Your task to perform on an android device: Open Reddit.com Image 0: 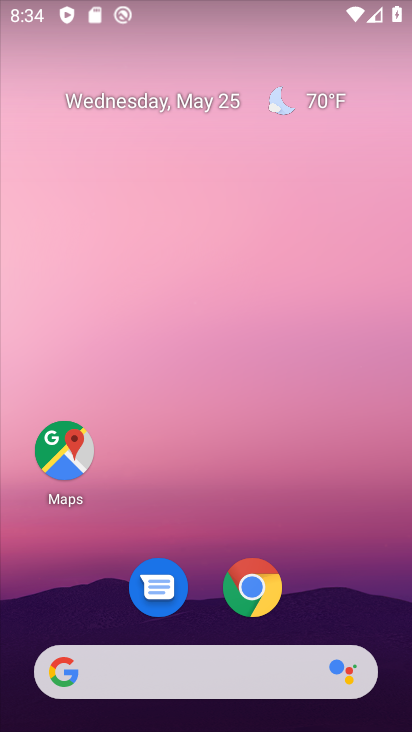
Step 0: click (244, 589)
Your task to perform on an android device: Open Reddit.com Image 1: 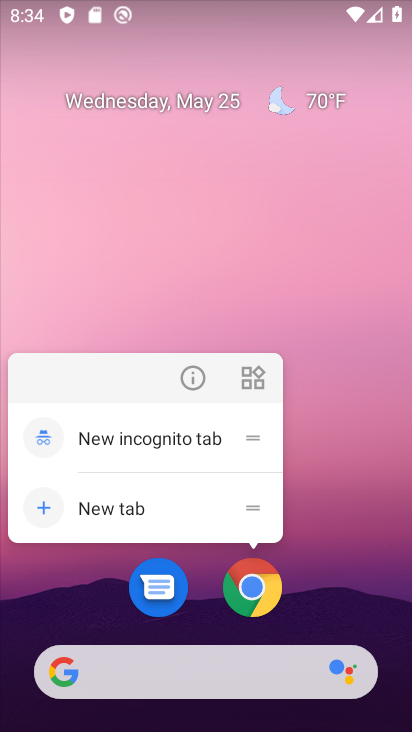
Step 1: click (244, 589)
Your task to perform on an android device: Open Reddit.com Image 2: 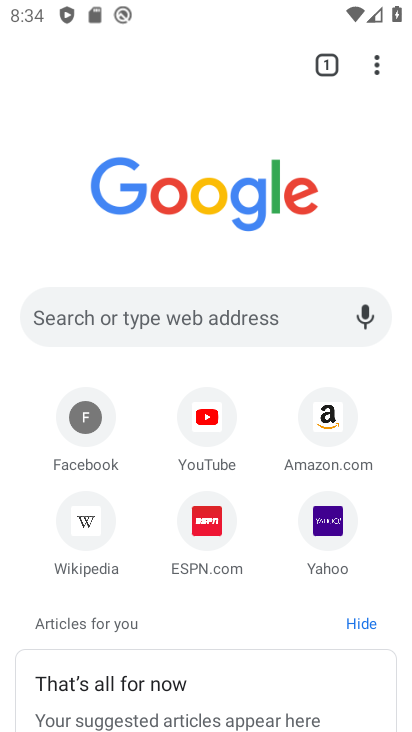
Step 2: click (225, 318)
Your task to perform on an android device: Open Reddit.com Image 3: 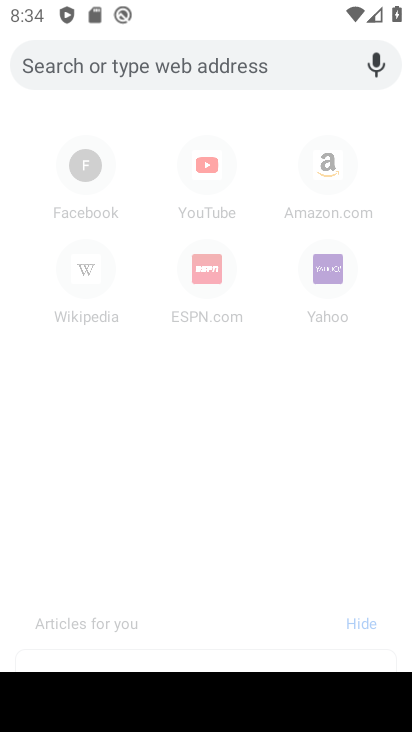
Step 3: type "Reddit.com"
Your task to perform on an android device: Open Reddit.com Image 4: 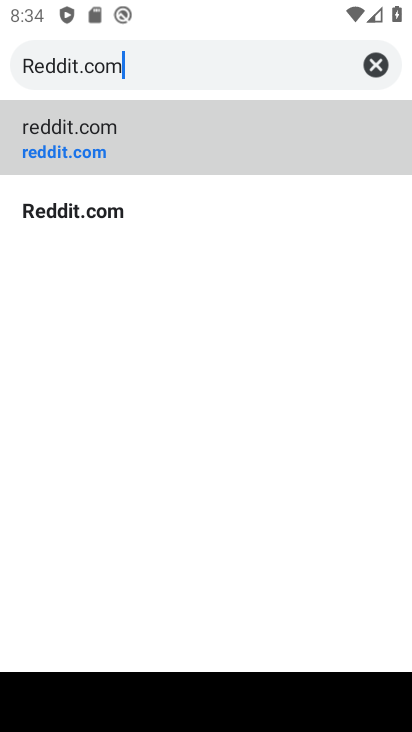
Step 4: click (126, 143)
Your task to perform on an android device: Open Reddit.com Image 5: 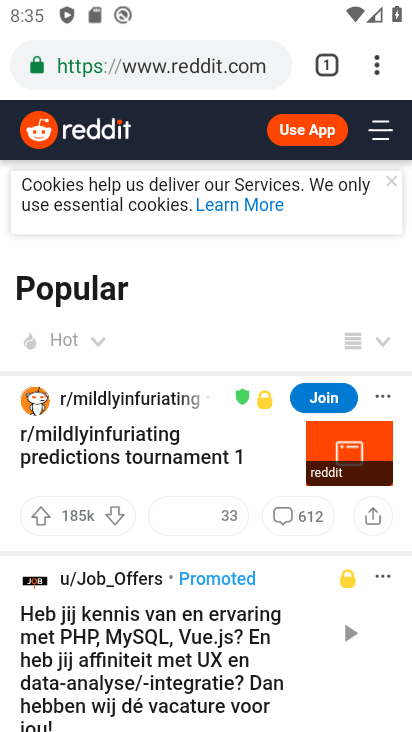
Step 5: task complete